Your task to perform on an android device: Open calendar and show me the first week of next month Image 0: 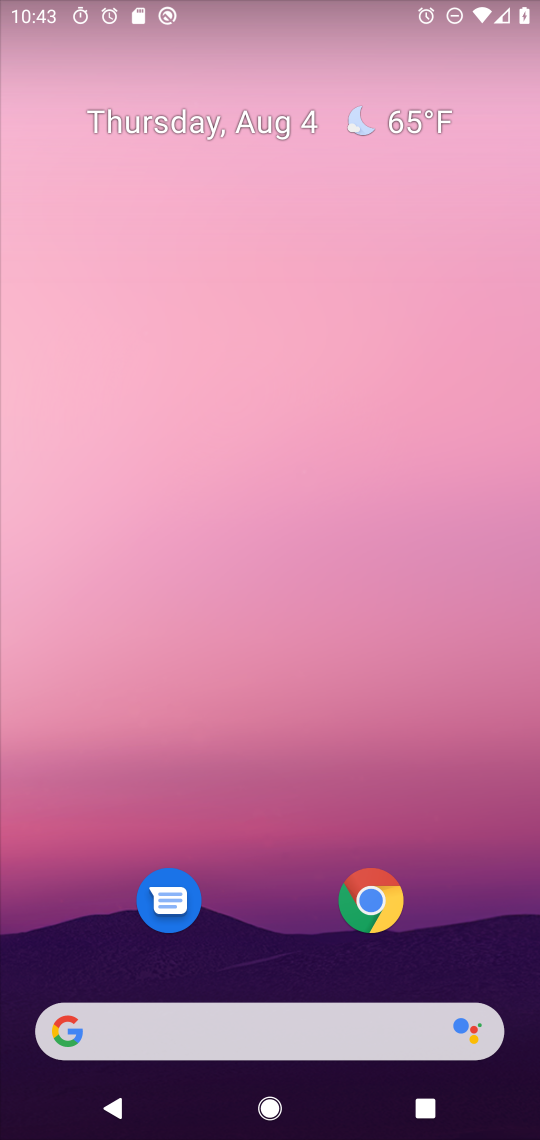
Step 0: drag from (281, 1030) to (340, 214)
Your task to perform on an android device: Open calendar and show me the first week of next month Image 1: 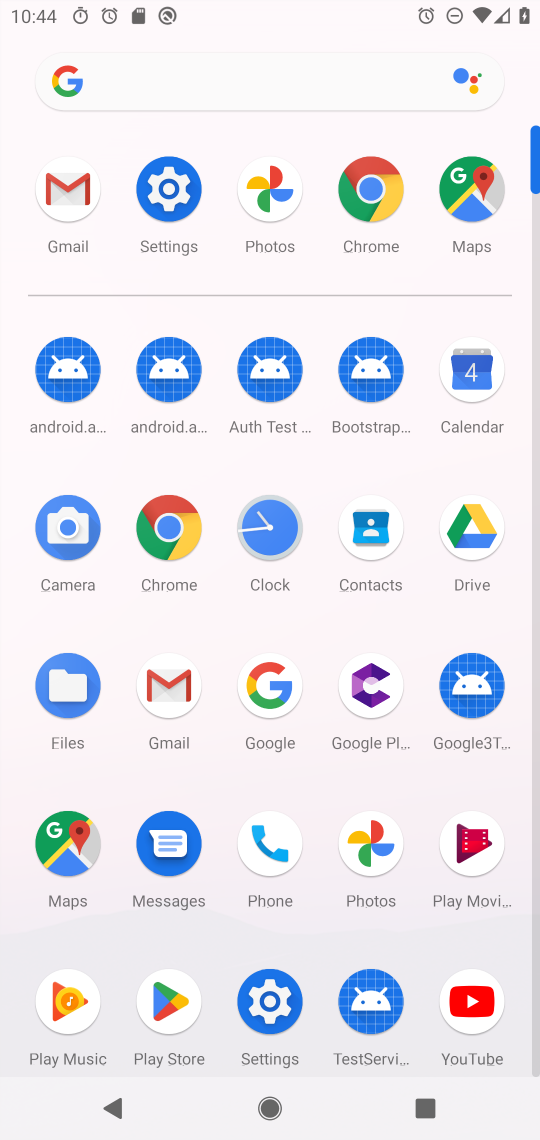
Step 1: click (476, 373)
Your task to perform on an android device: Open calendar and show me the first week of next month Image 2: 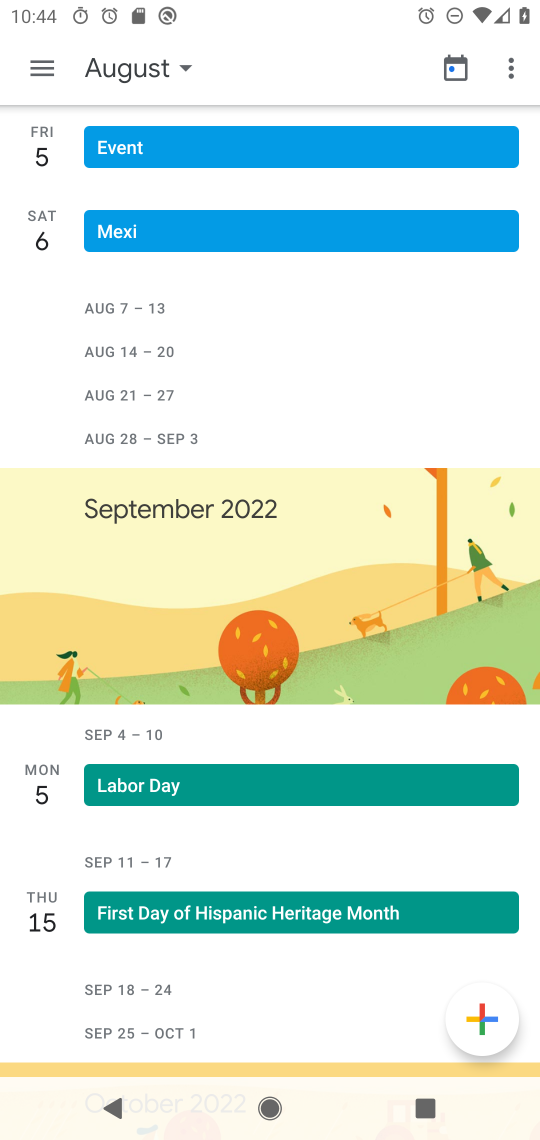
Step 2: click (458, 66)
Your task to perform on an android device: Open calendar and show me the first week of next month Image 3: 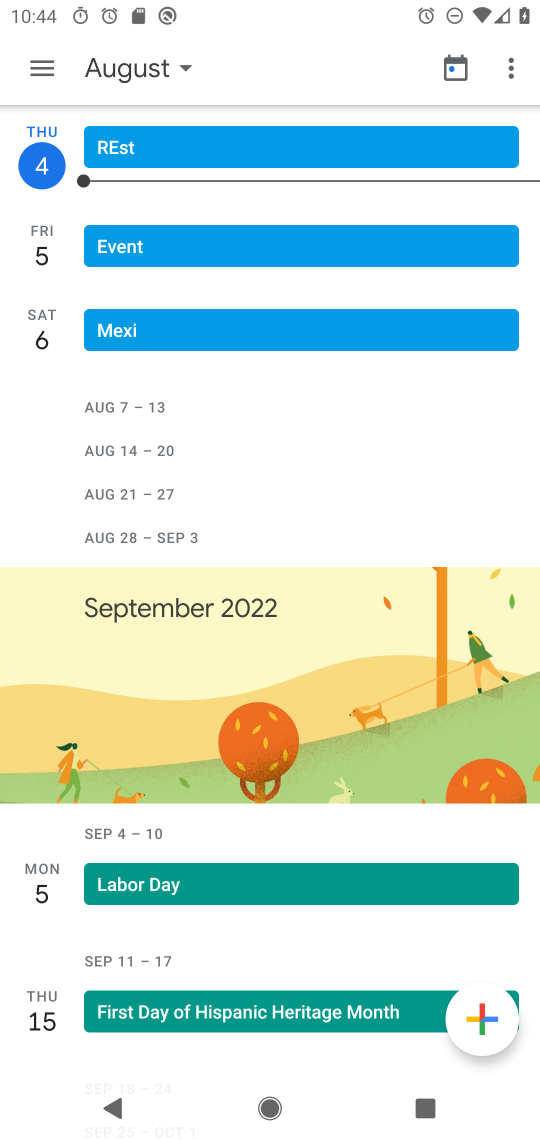
Step 3: click (185, 69)
Your task to perform on an android device: Open calendar and show me the first week of next month Image 4: 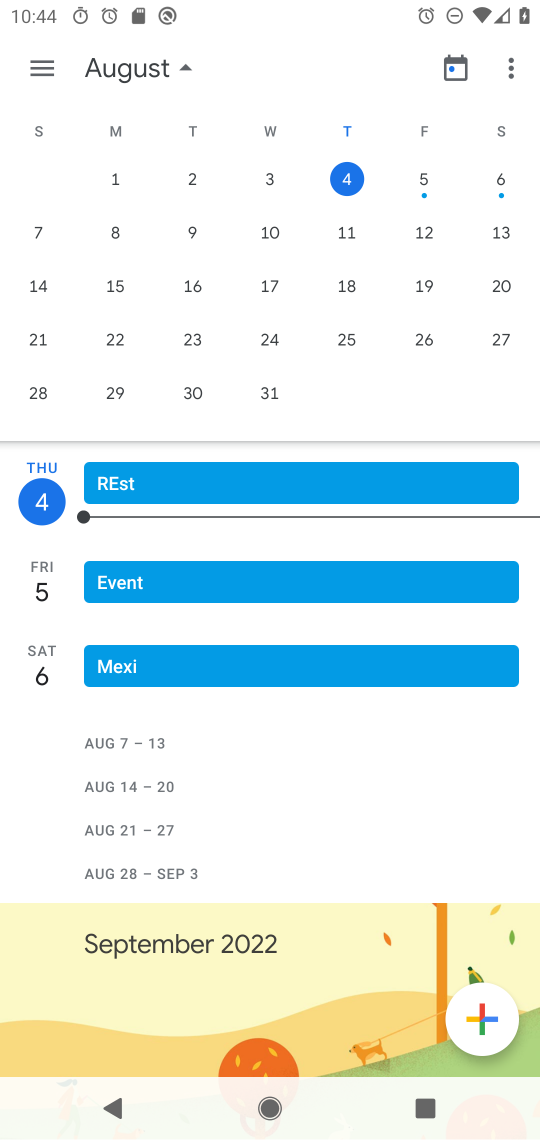
Step 4: drag from (483, 320) to (3, 286)
Your task to perform on an android device: Open calendar and show me the first week of next month Image 5: 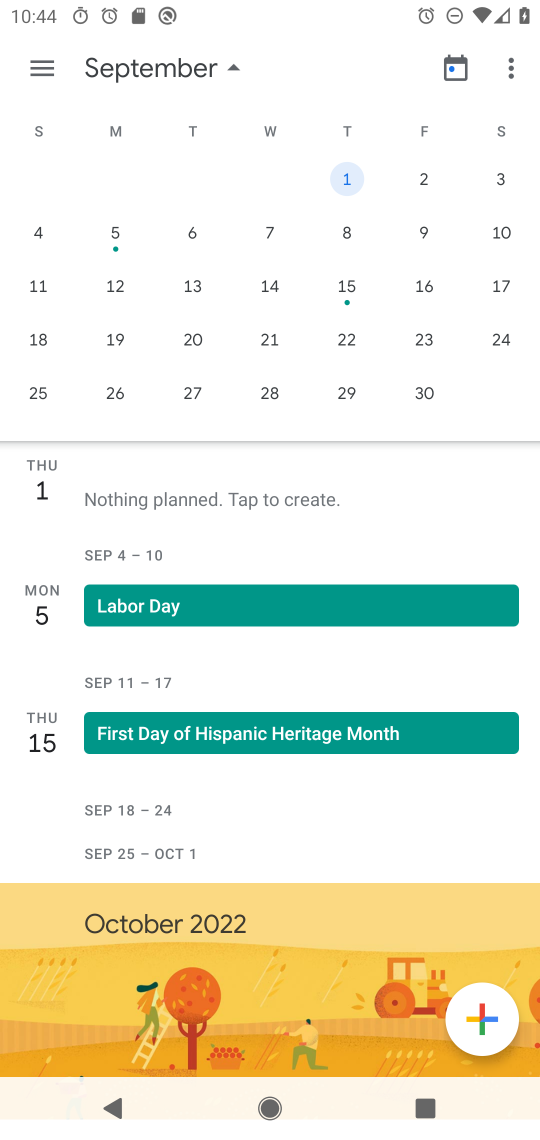
Step 5: click (115, 235)
Your task to perform on an android device: Open calendar and show me the first week of next month Image 6: 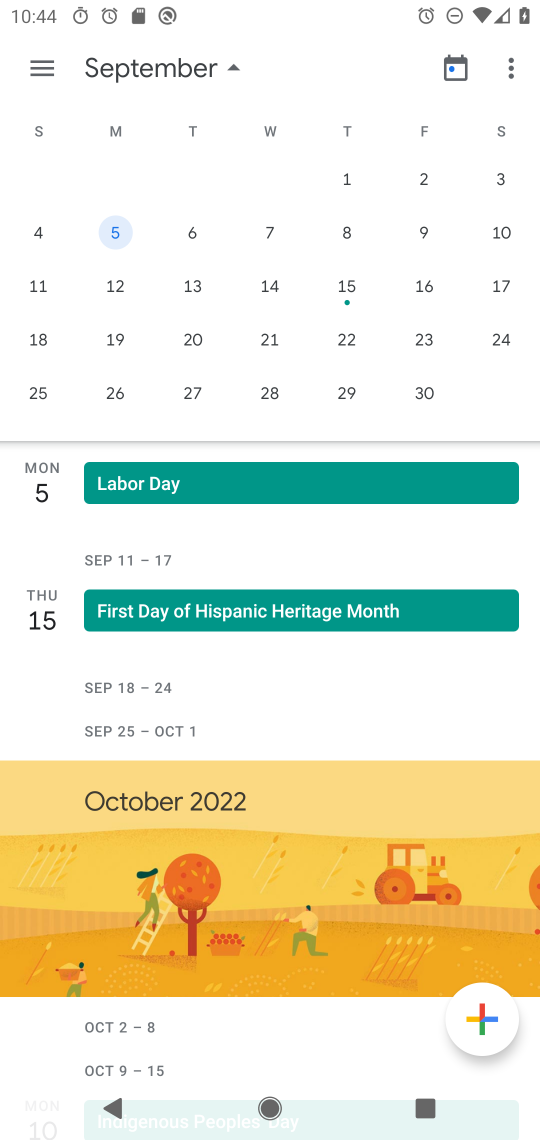
Step 6: click (35, 70)
Your task to perform on an android device: Open calendar and show me the first week of next month Image 7: 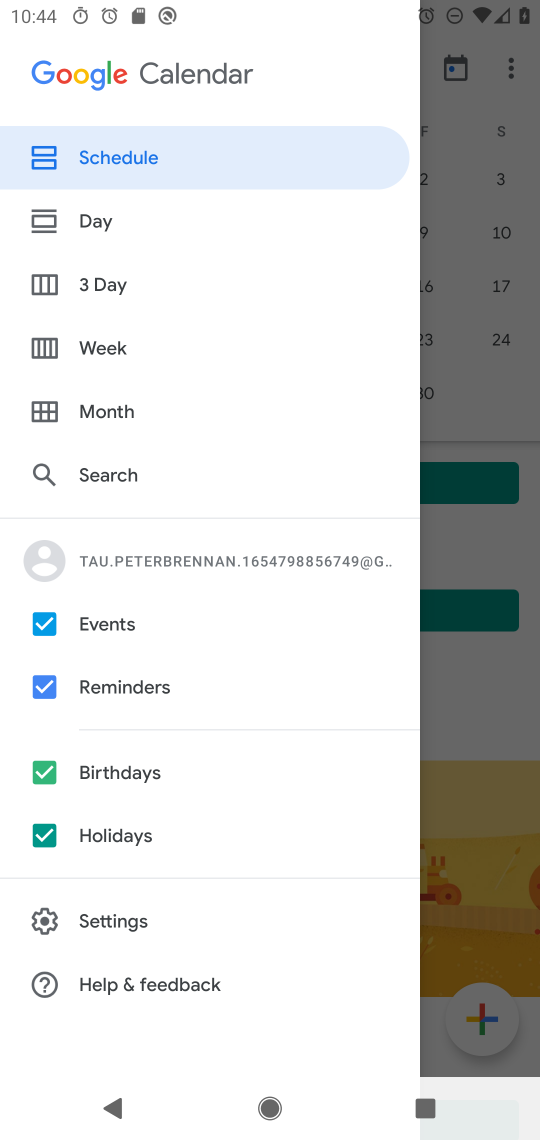
Step 7: click (95, 340)
Your task to perform on an android device: Open calendar and show me the first week of next month Image 8: 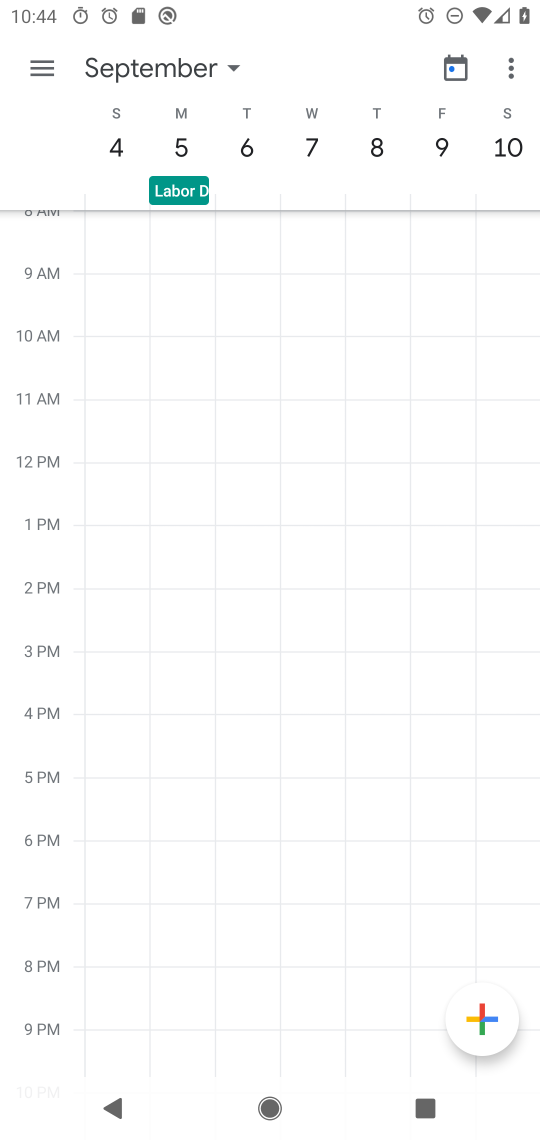
Step 8: task complete